Your task to perform on an android device: Search for Italian restaurants on Maps Image 0: 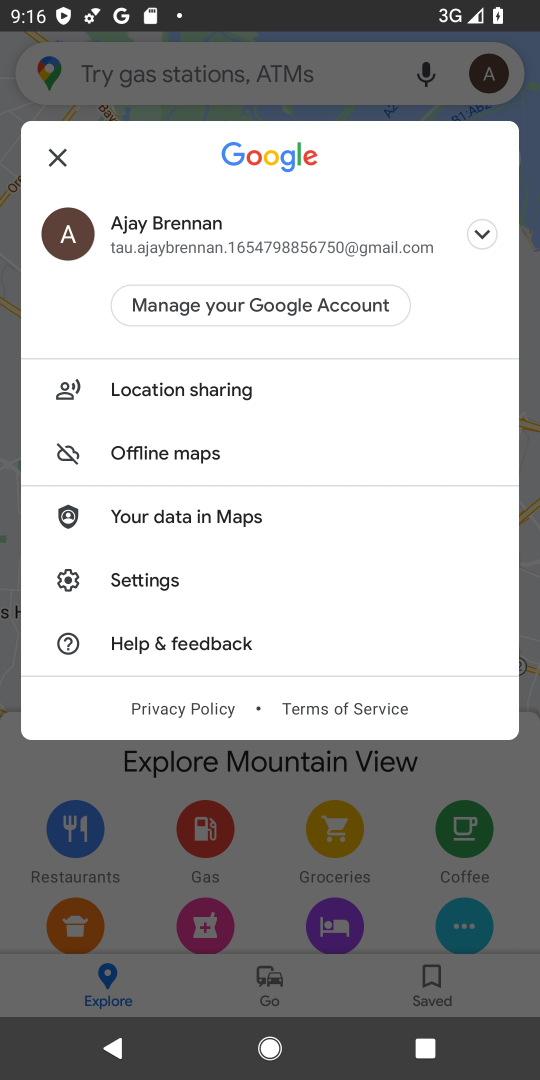
Step 0: press home button
Your task to perform on an android device: Search for Italian restaurants on Maps Image 1: 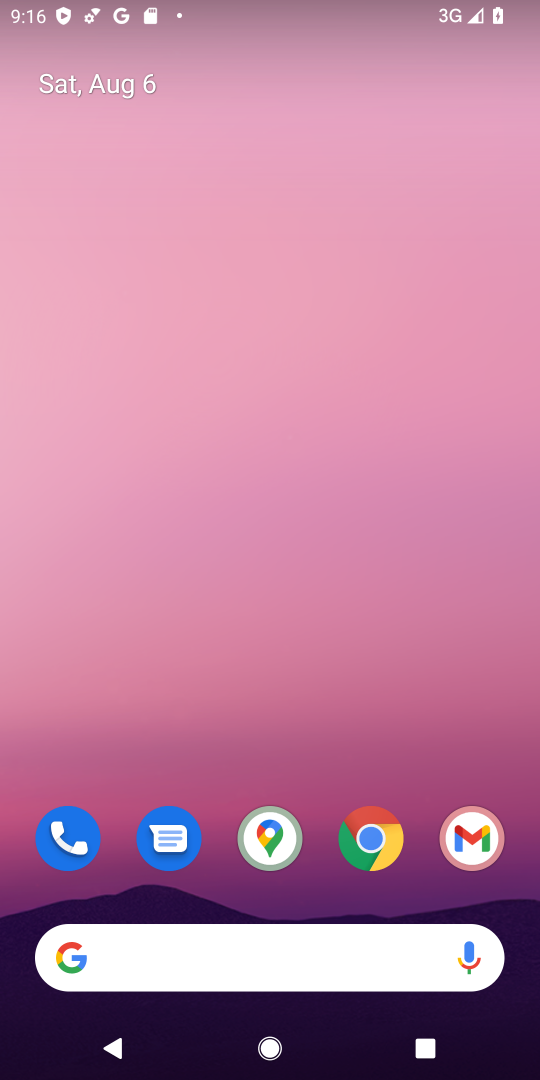
Step 1: click (257, 842)
Your task to perform on an android device: Search for Italian restaurants on Maps Image 2: 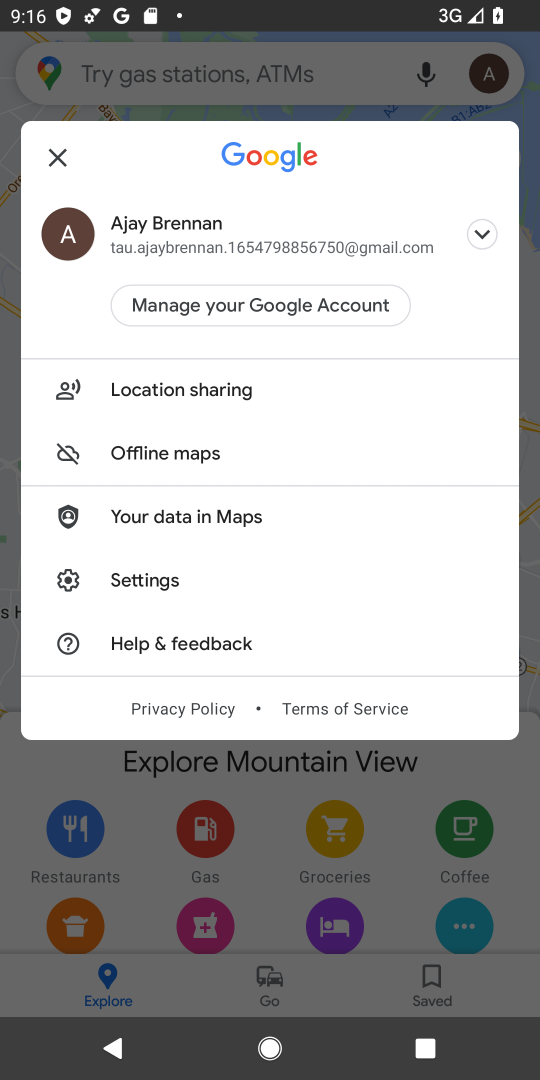
Step 2: click (373, 778)
Your task to perform on an android device: Search for Italian restaurants on Maps Image 3: 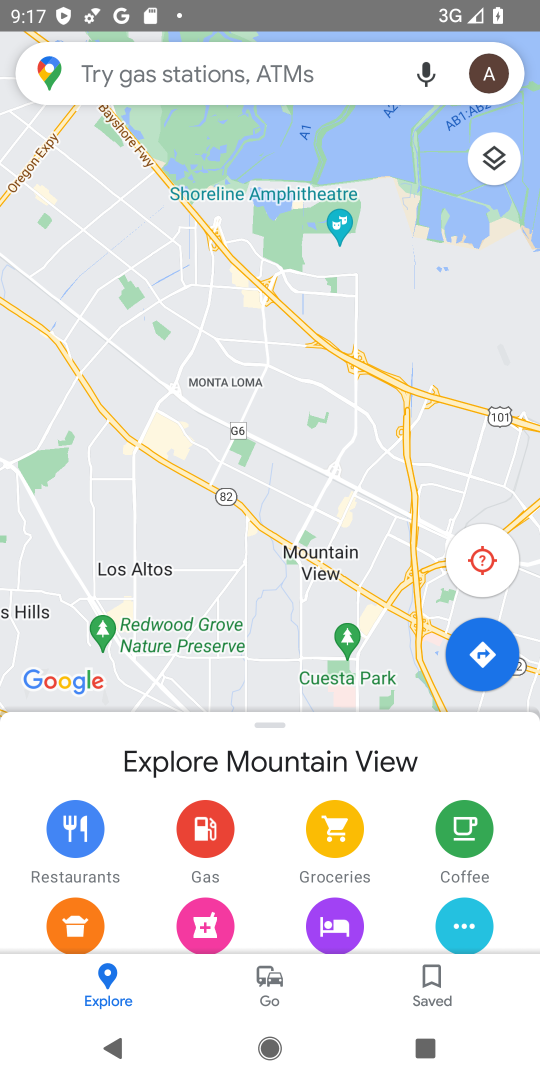
Step 3: click (274, 62)
Your task to perform on an android device: Search for Italian restaurants on Maps Image 4: 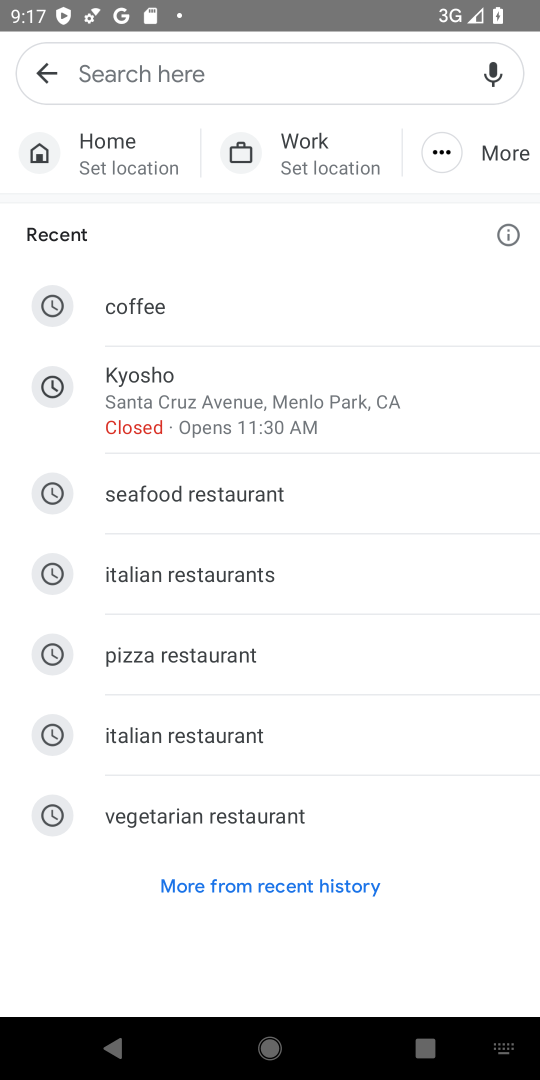
Step 4: click (300, 715)
Your task to perform on an android device: Search for Italian restaurants on Maps Image 5: 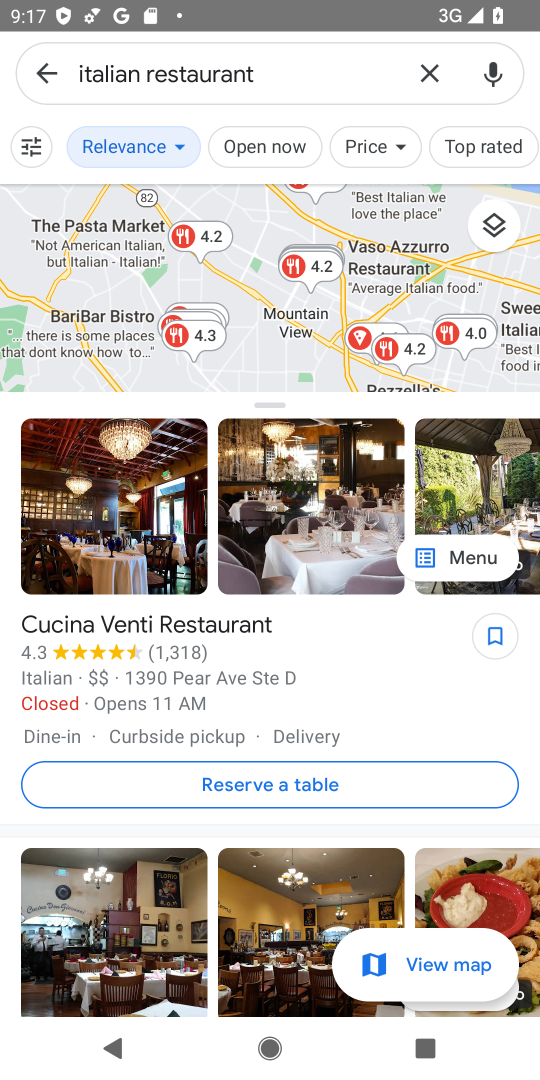
Step 5: task complete